Your task to perform on an android device: change the clock style Image 0: 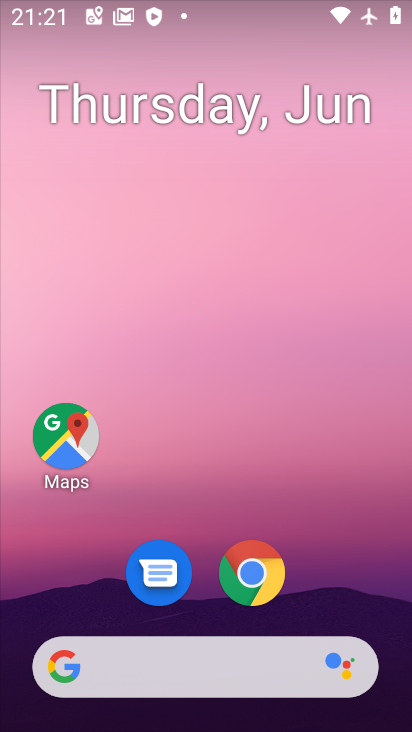
Step 0: drag from (291, 562) to (299, 257)
Your task to perform on an android device: change the clock style Image 1: 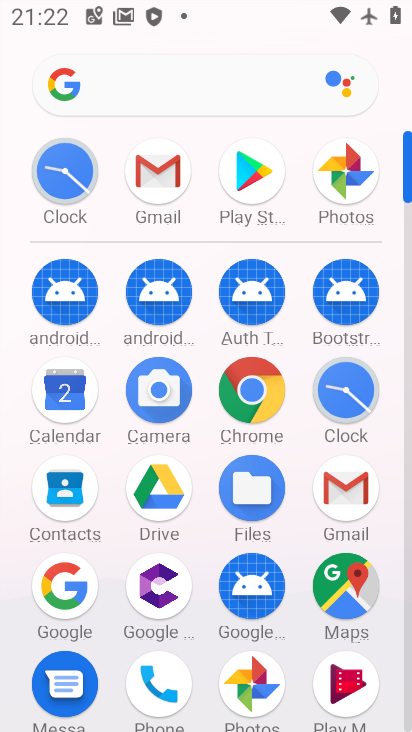
Step 1: click (320, 393)
Your task to perform on an android device: change the clock style Image 2: 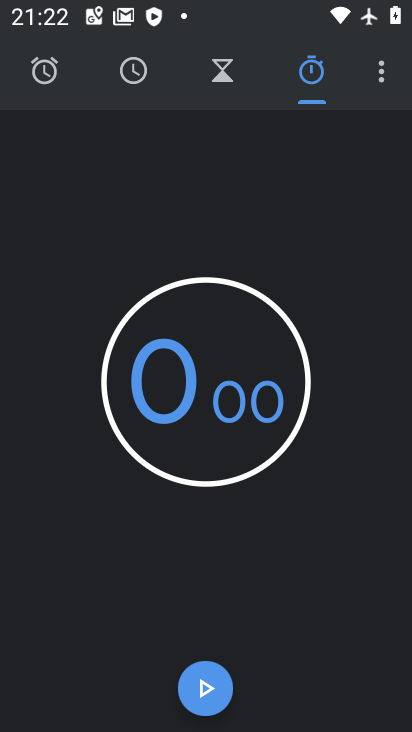
Step 2: click (378, 73)
Your task to perform on an android device: change the clock style Image 3: 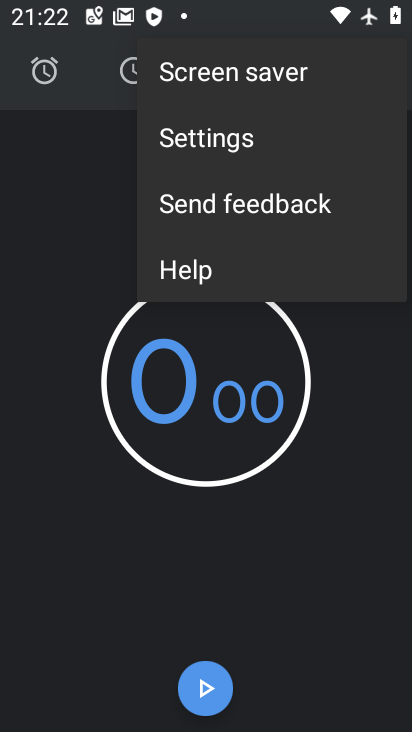
Step 3: click (218, 154)
Your task to perform on an android device: change the clock style Image 4: 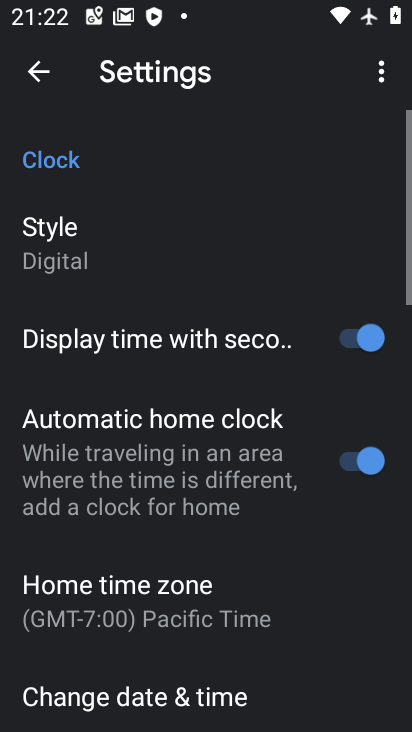
Step 4: click (76, 252)
Your task to perform on an android device: change the clock style Image 5: 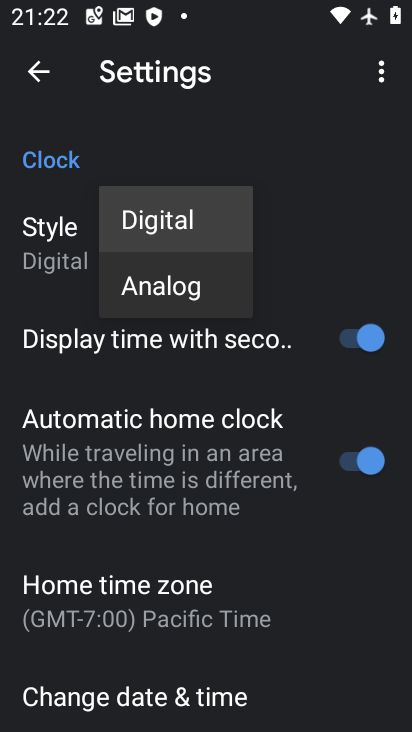
Step 5: click (217, 271)
Your task to perform on an android device: change the clock style Image 6: 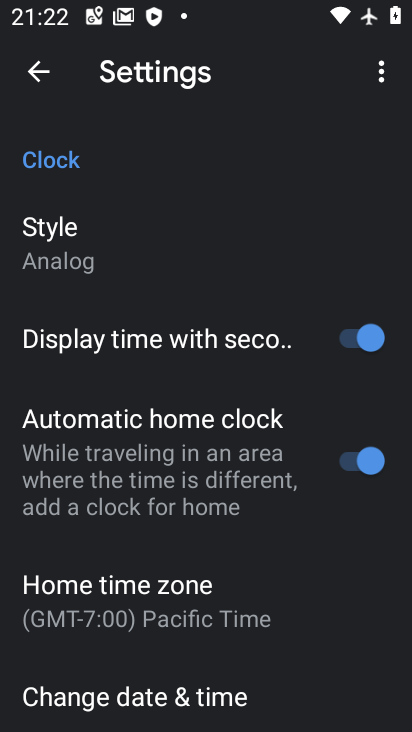
Step 6: task complete